Your task to perform on an android device: Open the phone app and click the voicemail tab. Image 0: 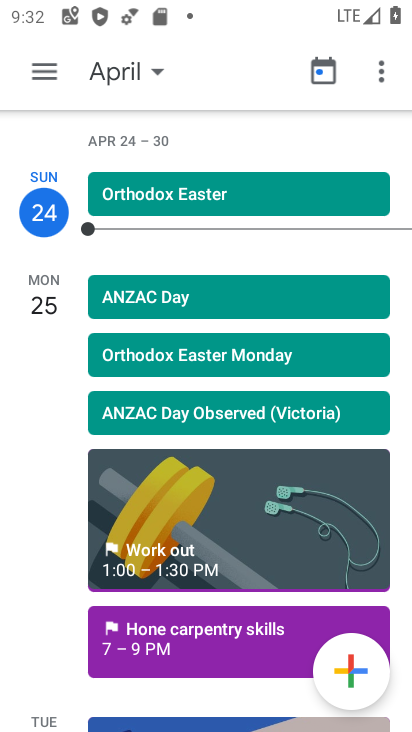
Step 0: press home button
Your task to perform on an android device: Open the phone app and click the voicemail tab. Image 1: 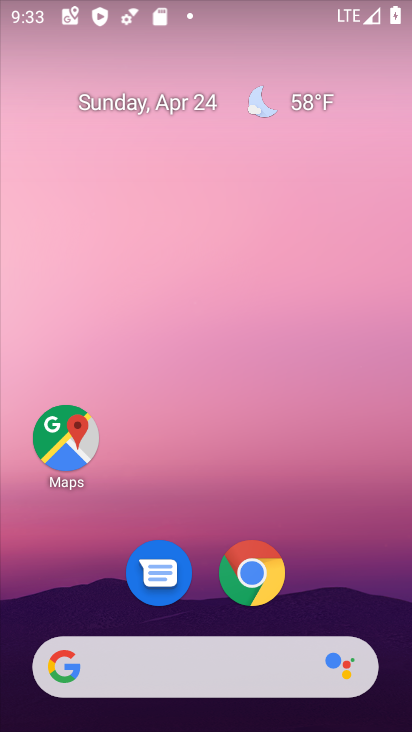
Step 1: drag from (351, 575) to (334, 206)
Your task to perform on an android device: Open the phone app and click the voicemail tab. Image 2: 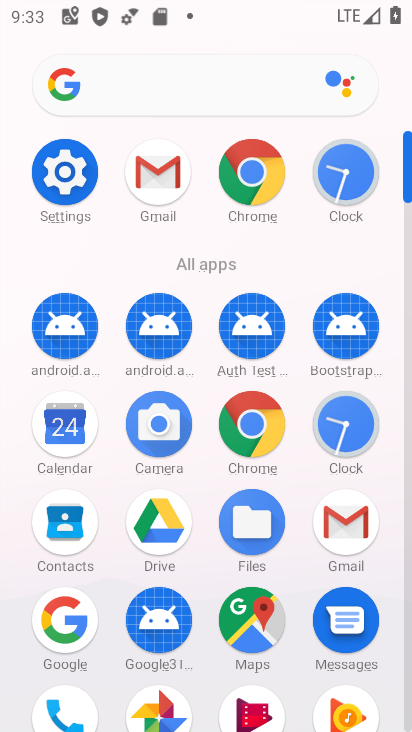
Step 2: click (53, 704)
Your task to perform on an android device: Open the phone app and click the voicemail tab. Image 3: 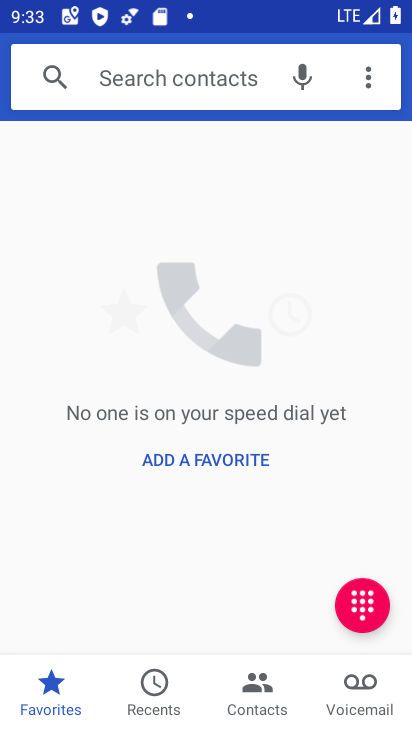
Step 3: click (351, 689)
Your task to perform on an android device: Open the phone app and click the voicemail tab. Image 4: 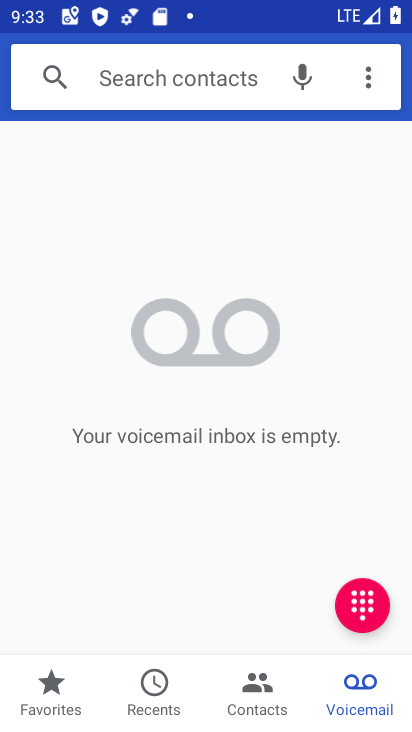
Step 4: task complete